Your task to perform on an android device: Open Google Chrome and open the bookmarks view Image 0: 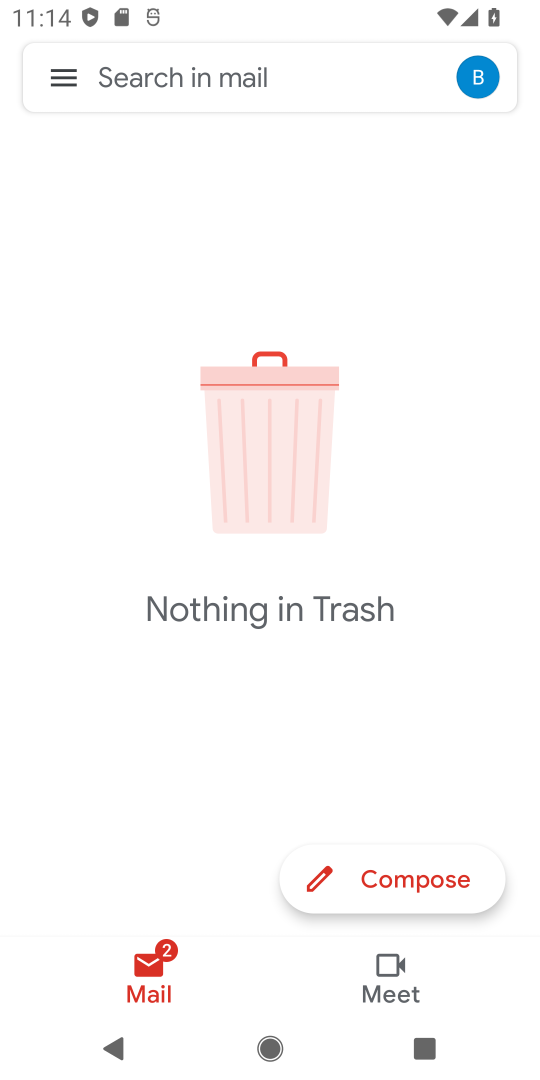
Step 0: click (75, 83)
Your task to perform on an android device: Open Google Chrome and open the bookmarks view Image 1: 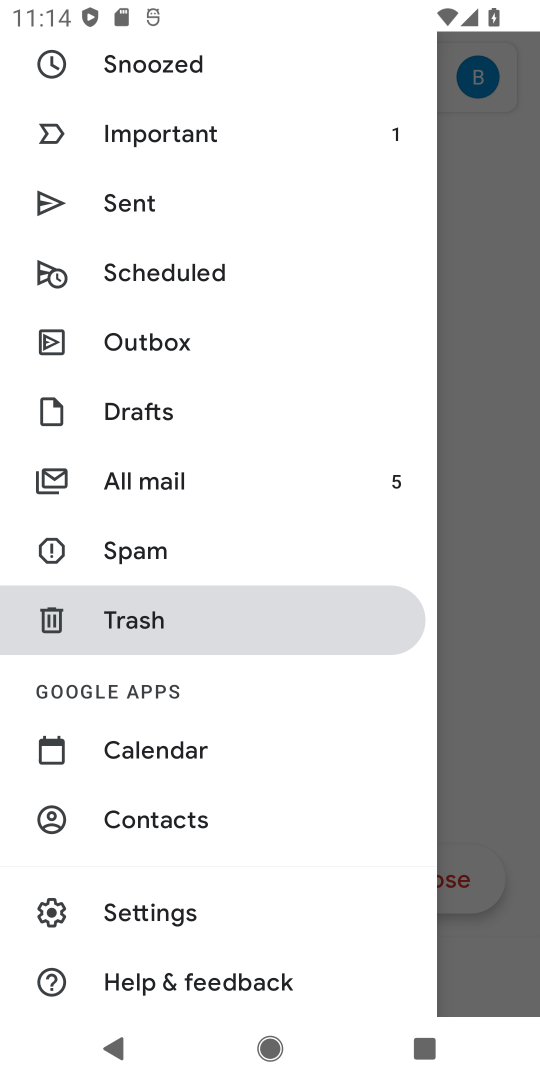
Step 1: drag from (202, 101) to (365, 634)
Your task to perform on an android device: Open Google Chrome and open the bookmarks view Image 2: 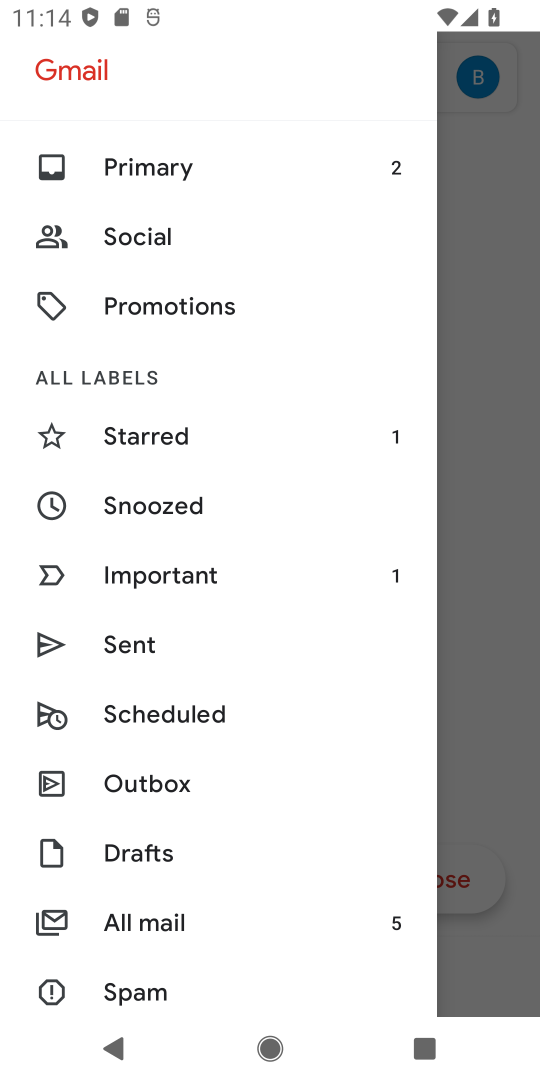
Step 2: press home button
Your task to perform on an android device: Open Google Chrome and open the bookmarks view Image 3: 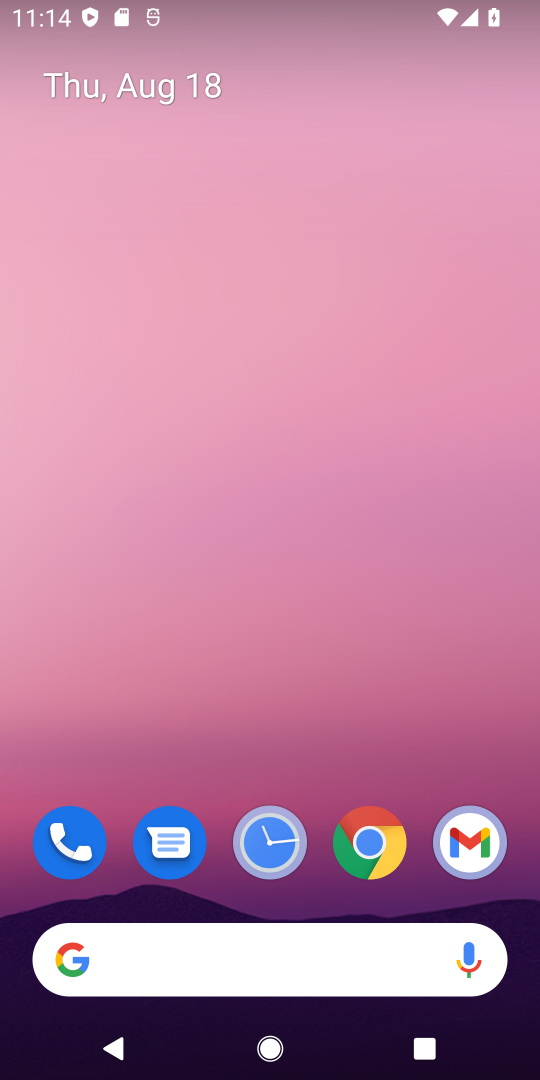
Step 3: click (354, 847)
Your task to perform on an android device: Open Google Chrome and open the bookmarks view Image 4: 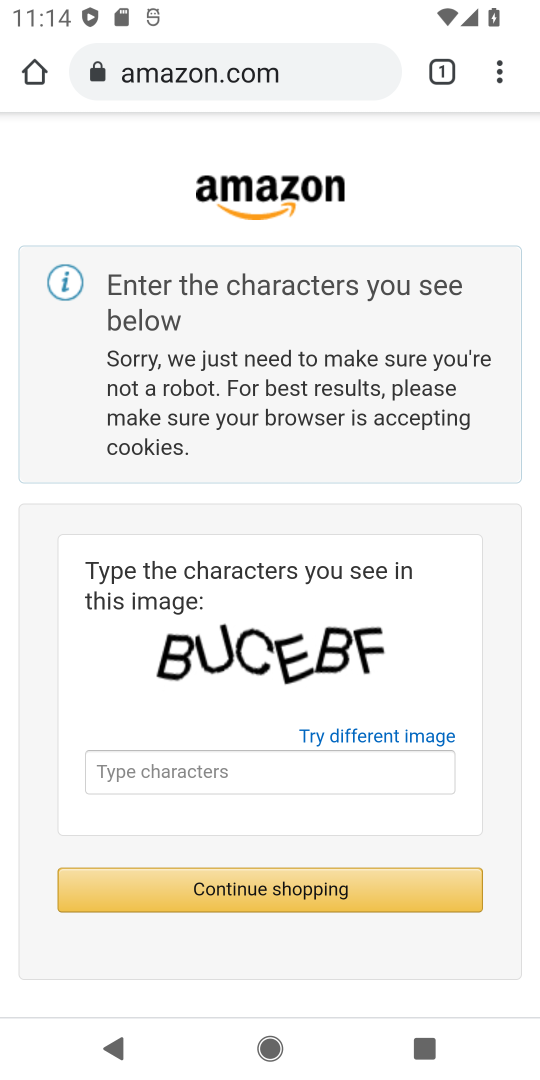
Step 4: click (504, 64)
Your task to perform on an android device: Open Google Chrome and open the bookmarks view Image 5: 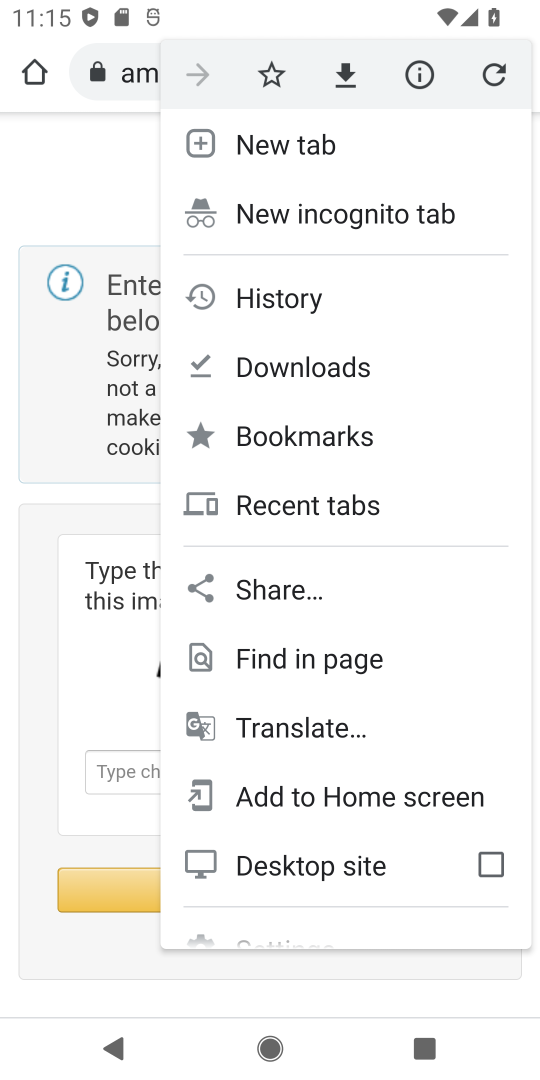
Step 5: click (364, 455)
Your task to perform on an android device: Open Google Chrome and open the bookmarks view Image 6: 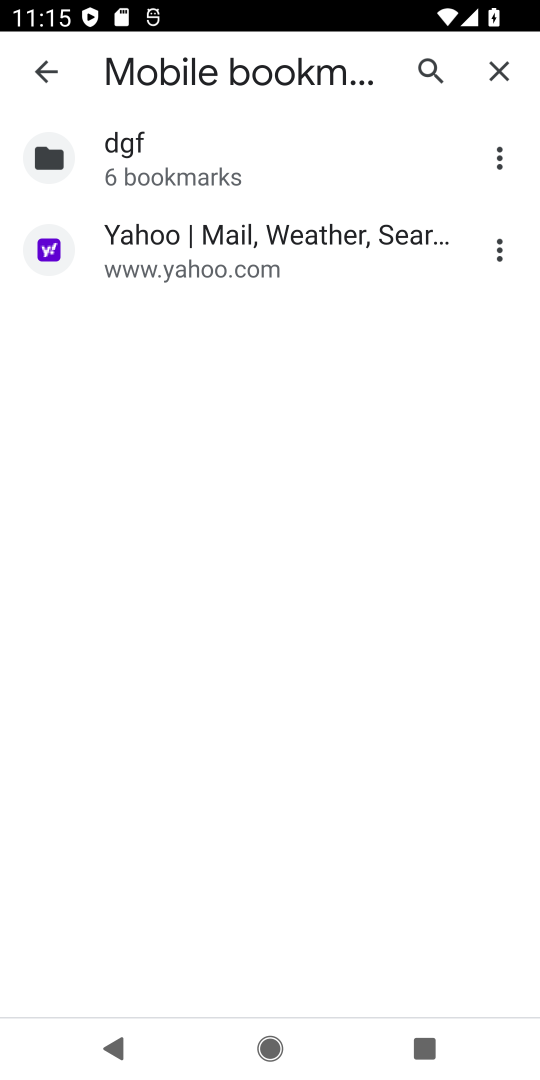
Step 6: task complete